Your task to perform on an android device: Do I have any events today? Image 0: 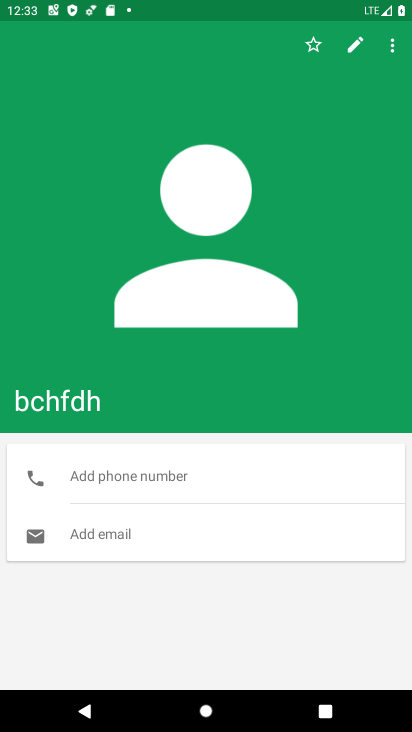
Step 0: task complete